Your task to perform on an android device: Search for "bose soundlink" on ebay.com, select the first entry, add it to the cart, then select checkout. Image 0: 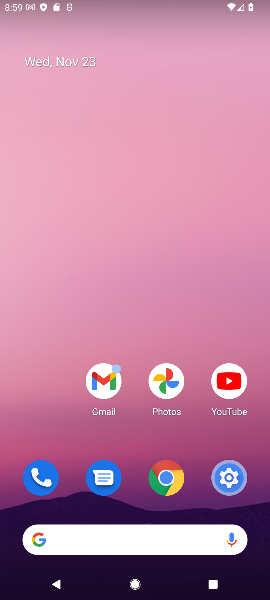
Step 0: click (158, 530)
Your task to perform on an android device: Search for "bose soundlink" on ebay.com, select the first entry, add it to the cart, then select checkout. Image 1: 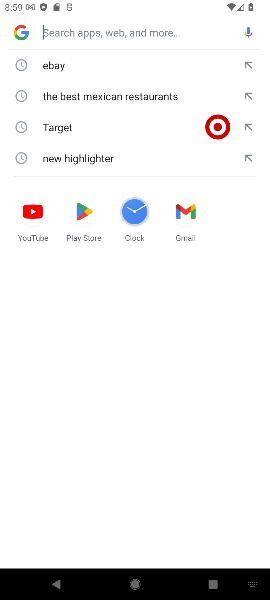
Step 1: click (57, 74)
Your task to perform on an android device: Search for "bose soundlink" on ebay.com, select the first entry, add it to the cart, then select checkout. Image 2: 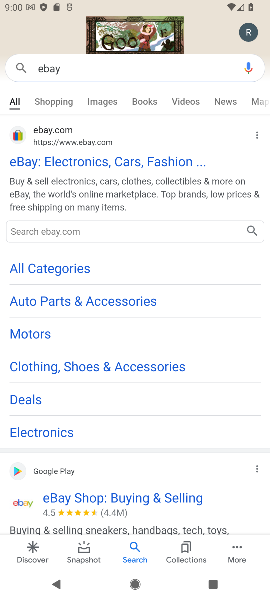
Step 2: click (100, 160)
Your task to perform on an android device: Search for "bose soundlink" on ebay.com, select the first entry, add it to the cart, then select checkout. Image 3: 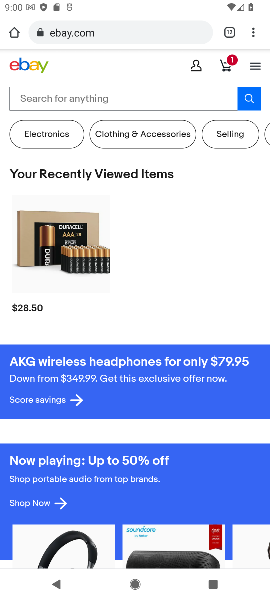
Step 3: type "bose sounlink"
Your task to perform on an android device: Search for "bose soundlink" on ebay.com, select the first entry, add it to the cart, then select checkout. Image 4: 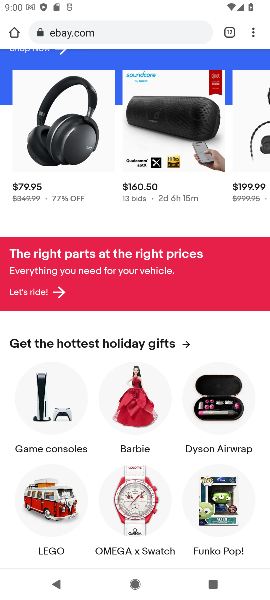
Step 4: task complete